Your task to perform on an android device: What's on my calendar today? Image 0: 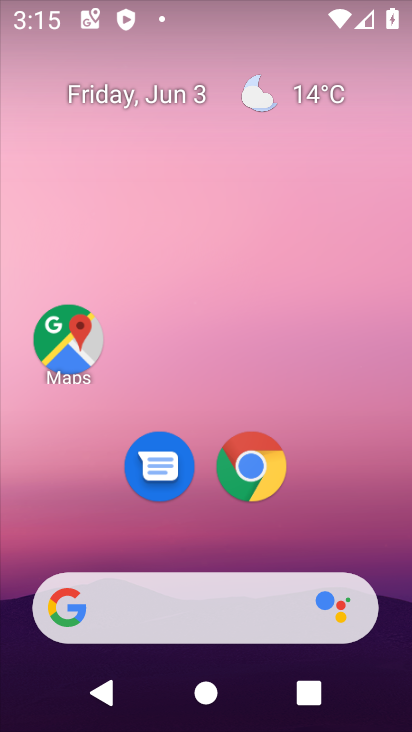
Step 0: drag from (365, 511) to (295, 145)
Your task to perform on an android device: What's on my calendar today? Image 1: 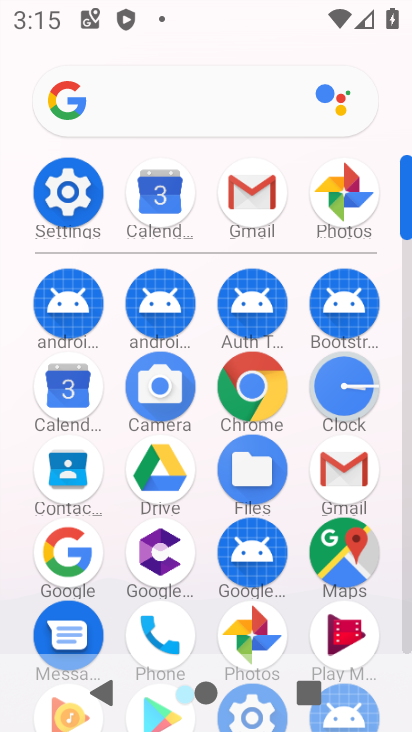
Step 1: click (146, 211)
Your task to perform on an android device: What's on my calendar today? Image 2: 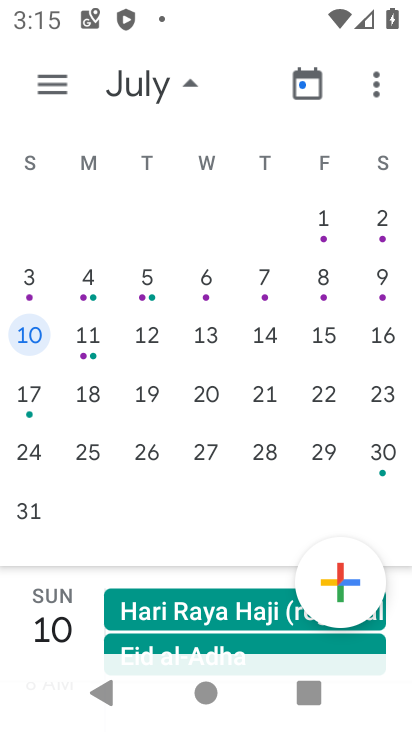
Step 2: drag from (19, 212) to (347, 188)
Your task to perform on an android device: What's on my calendar today? Image 3: 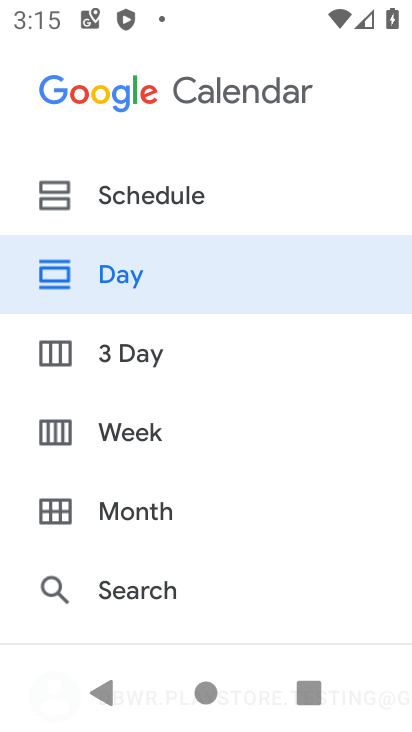
Step 3: press back button
Your task to perform on an android device: What's on my calendar today? Image 4: 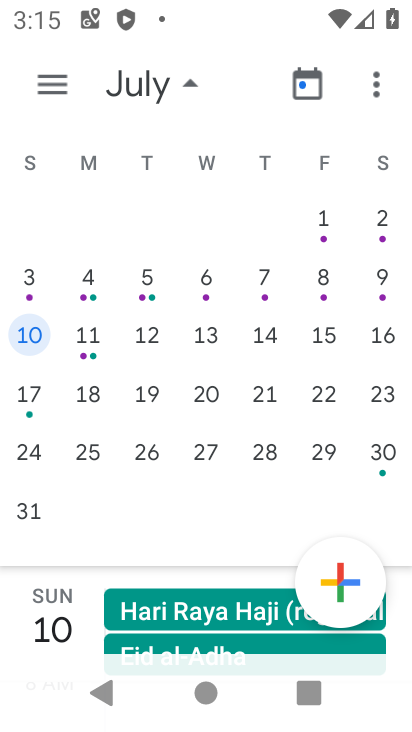
Step 4: drag from (86, 223) to (374, 210)
Your task to perform on an android device: What's on my calendar today? Image 5: 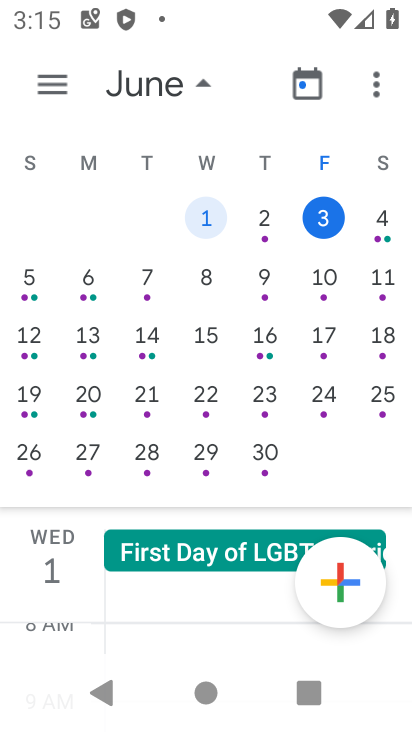
Step 5: click (321, 222)
Your task to perform on an android device: What's on my calendar today? Image 6: 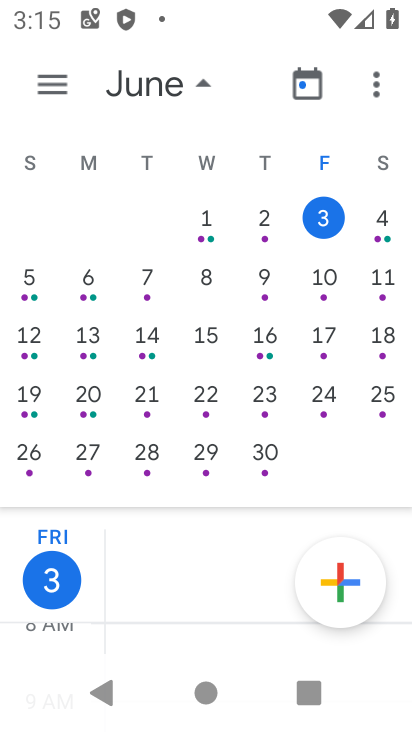
Step 6: task complete